Your task to perform on an android device: Go to accessibility settings Image 0: 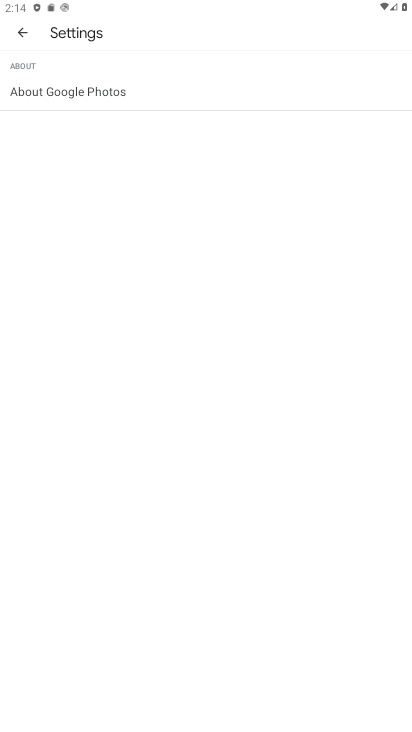
Step 0: press home button
Your task to perform on an android device: Go to accessibility settings Image 1: 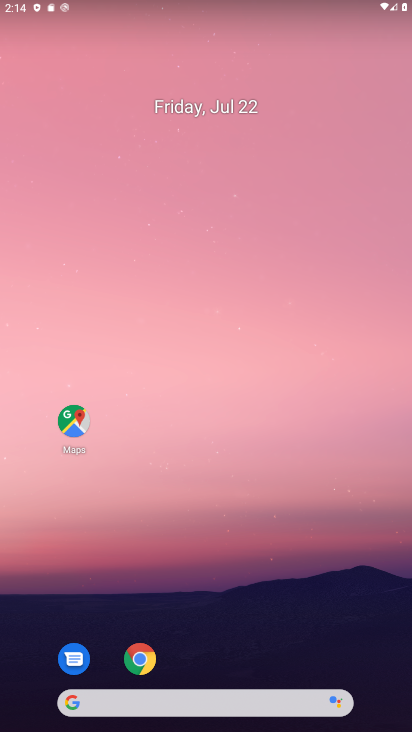
Step 1: drag from (241, 654) to (216, 98)
Your task to perform on an android device: Go to accessibility settings Image 2: 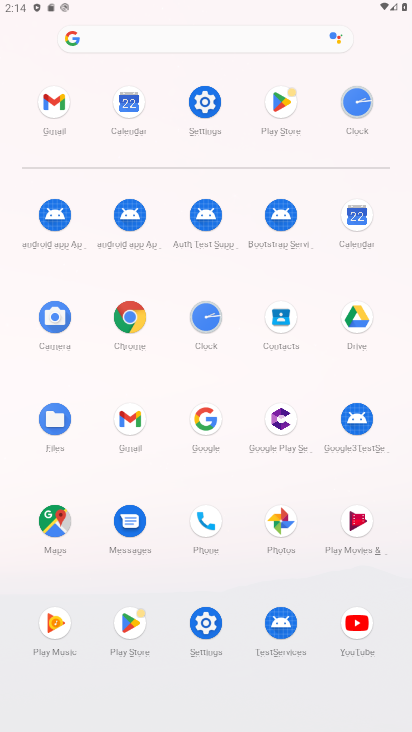
Step 2: click (214, 107)
Your task to perform on an android device: Go to accessibility settings Image 3: 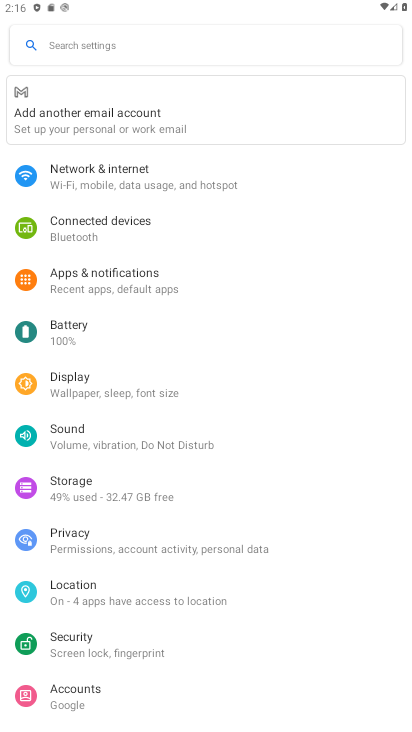
Step 3: drag from (104, 593) to (115, 404)
Your task to perform on an android device: Go to accessibility settings Image 4: 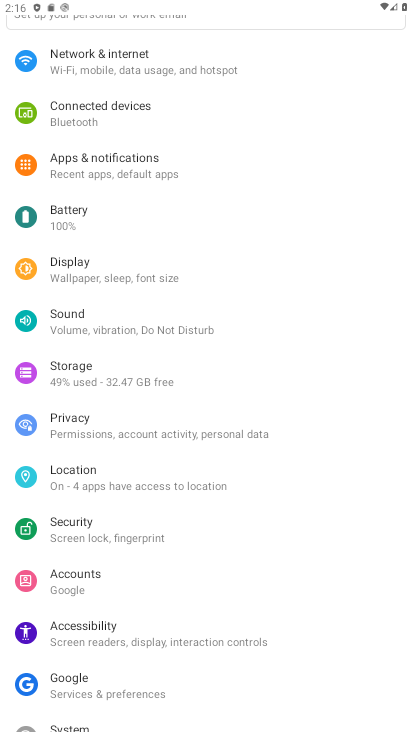
Step 4: click (127, 637)
Your task to perform on an android device: Go to accessibility settings Image 5: 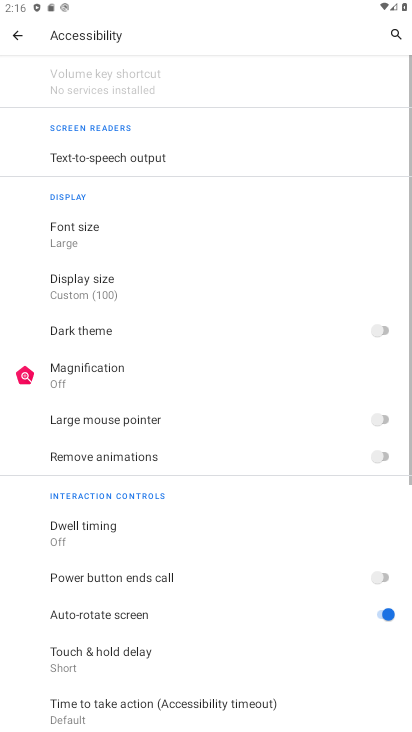
Step 5: task complete